Your task to perform on an android device: see sites visited before in the chrome app Image 0: 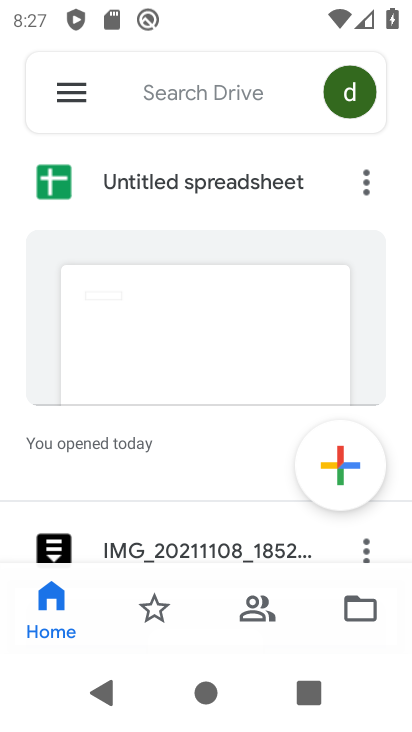
Step 0: press home button
Your task to perform on an android device: see sites visited before in the chrome app Image 1: 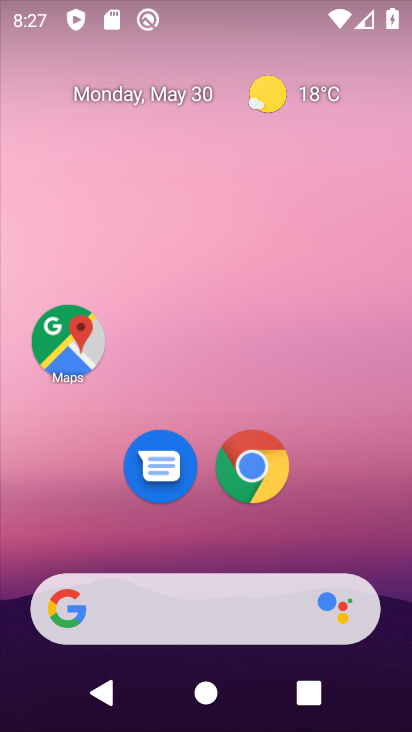
Step 1: click (258, 456)
Your task to perform on an android device: see sites visited before in the chrome app Image 2: 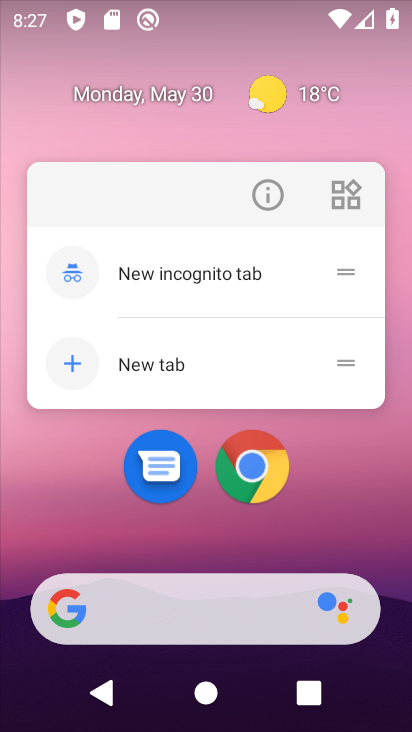
Step 2: click (242, 464)
Your task to perform on an android device: see sites visited before in the chrome app Image 3: 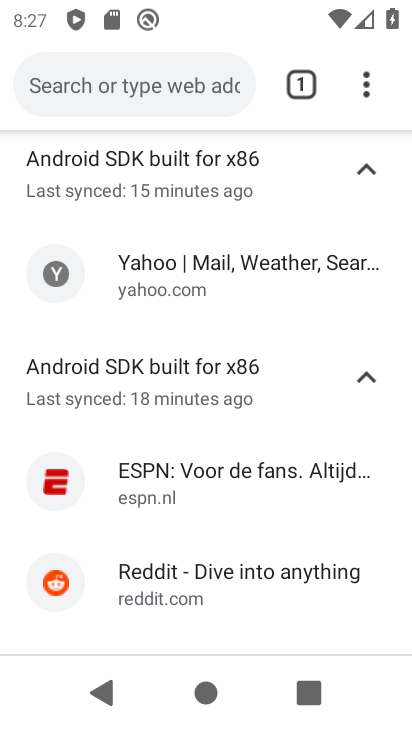
Step 3: drag from (360, 81) to (61, 468)
Your task to perform on an android device: see sites visited before in the chrome app Image 4: 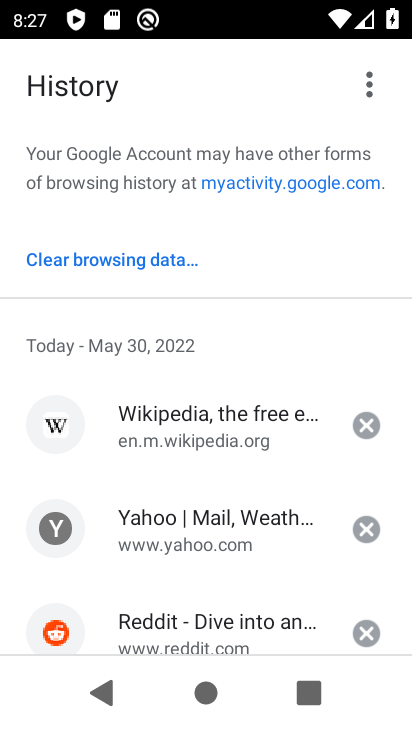
Step 4: click (172, 404)
Your task to perform on an android device: see sites visited before in the chrome app Image 5: 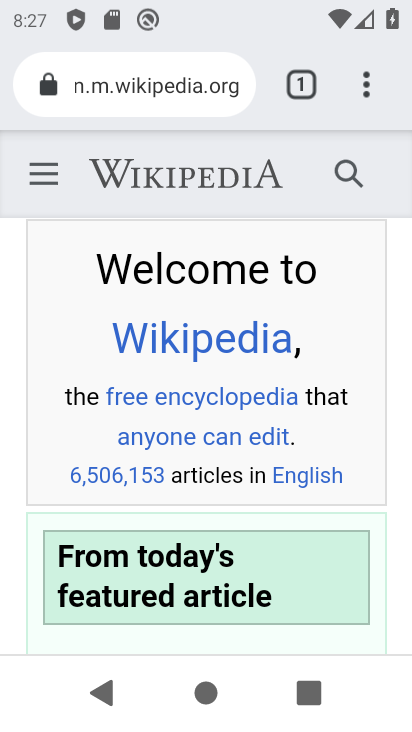
Step 5: task complete